Your task to perform on an android device: Play the last video I watched on Youtube Image 0: 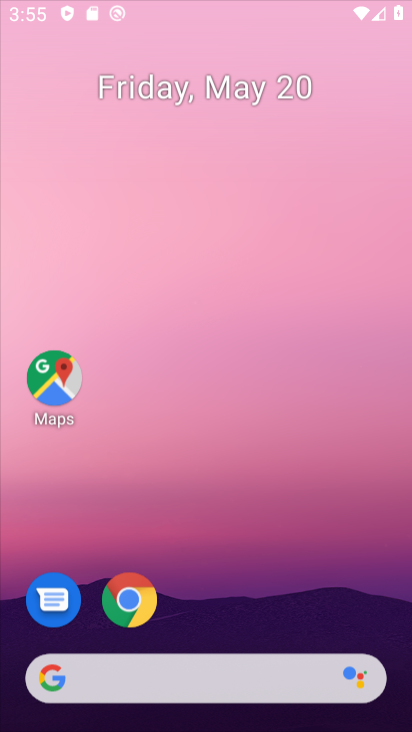
Step 0: click (229, 0)
Your task to perform on an android device: Play the last video I watched on Youtube Image 1: 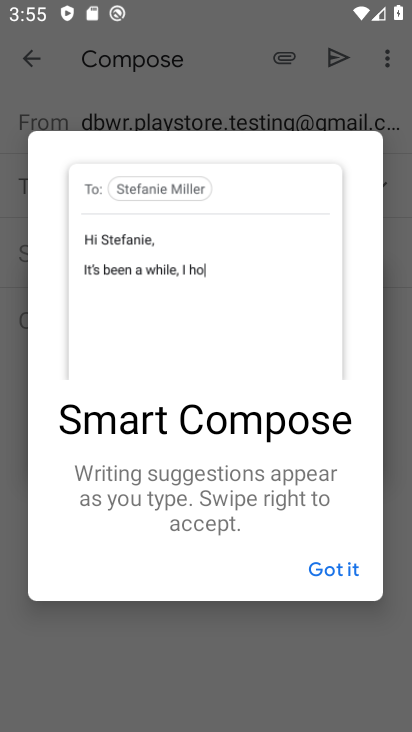
Step 1: press back button
Your task to perform on an android device: Play the last video I watched on Youtube Image 2: 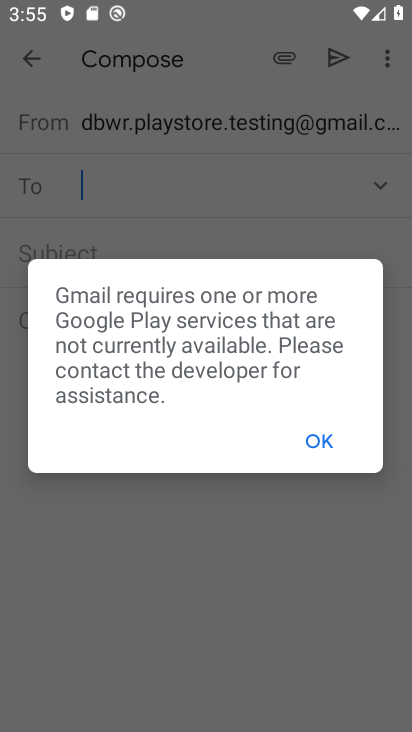
Step 2: press home button
Your task to perform on an android device: Play the last video I watched on Youtube Image 3: 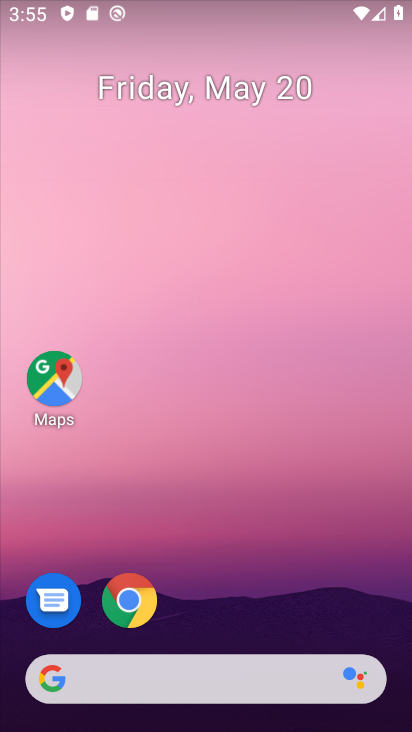
Step 3: drag from (225, 557) to (198, 0)
Your task to perform on an android device: Play the last video I watched on Youtube Image 4: 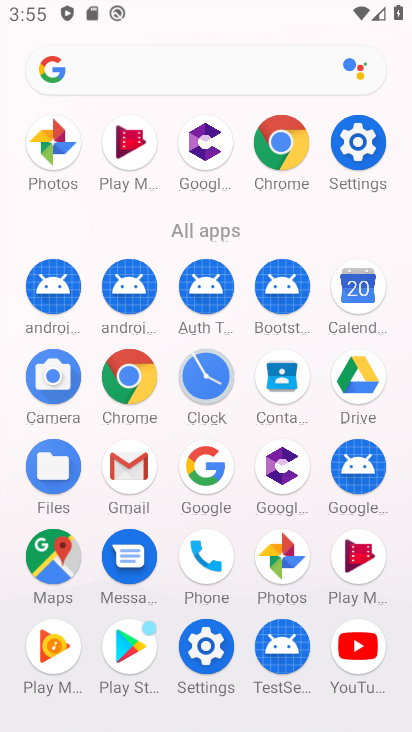
Step 4: drag from (15, 614) to (22, 313)
Your task to perform on an android device: Play the last video I watched on Youtube Image 5: 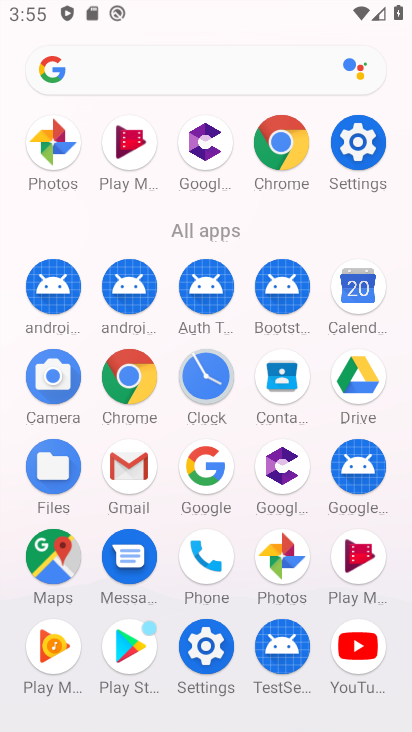
Step 5: click (351, 639)
Your task to perform on an android device: Play the last video I watched on Youtube Image 6: 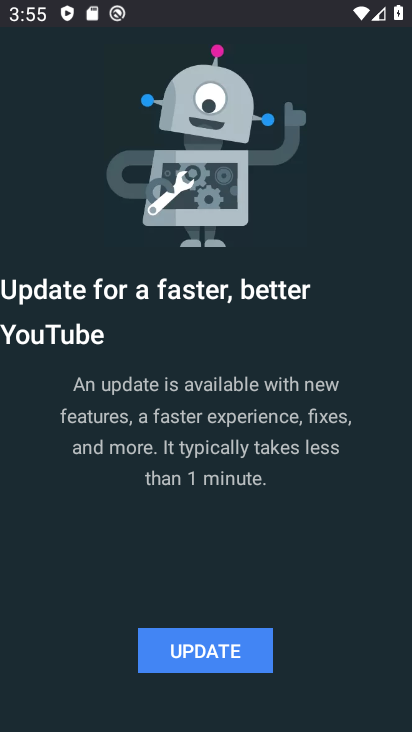
Step 6: click (236, 637)
Your task to perform on an android device: Play the last video I watched on Youtube Image 7: 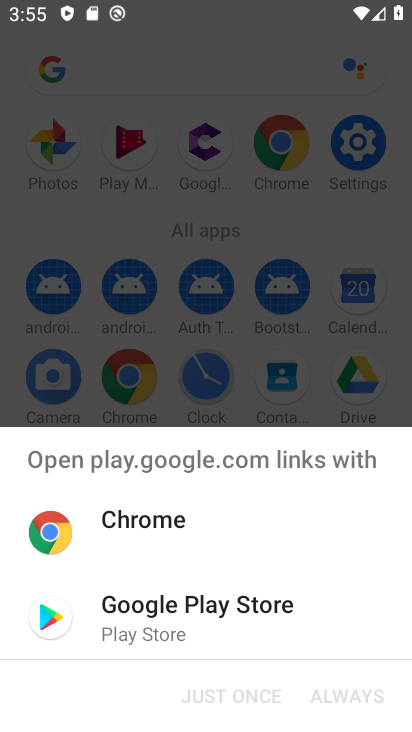
Step 7: click (173, 616)
Your task to perform on an android device: Play the last video I watched on Youtube Image 8: 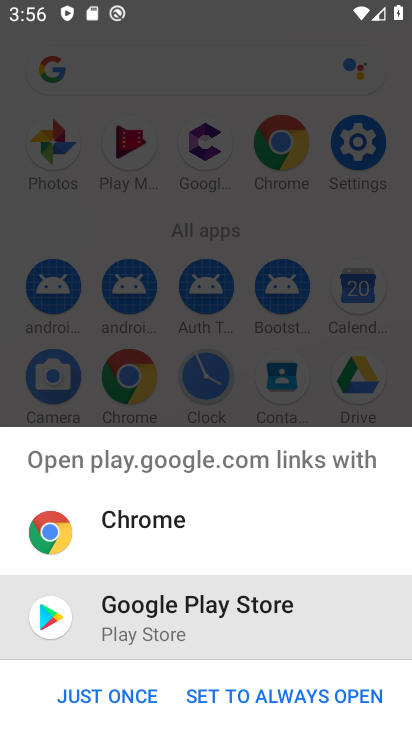
Step 8: click (114, 700)
Your task to perform on an android device: Play the last video I watched on Youtube Image 9: 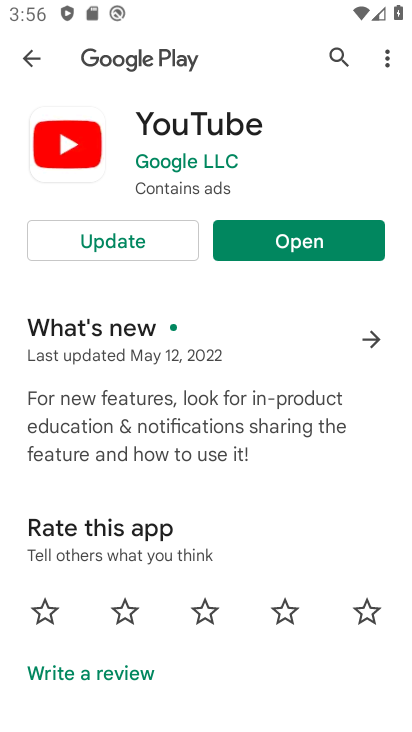
Step 9: click (137, 230)
Your task to perform on an android device: Play the last video I watched on Youtube Image 10: 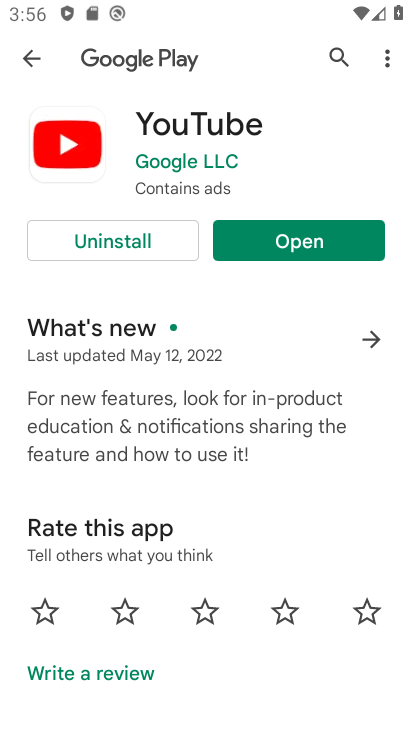
Step 10: click (236, 234)
Your task to perform on an android device: Play the last video I watched on Youtube Image 11: 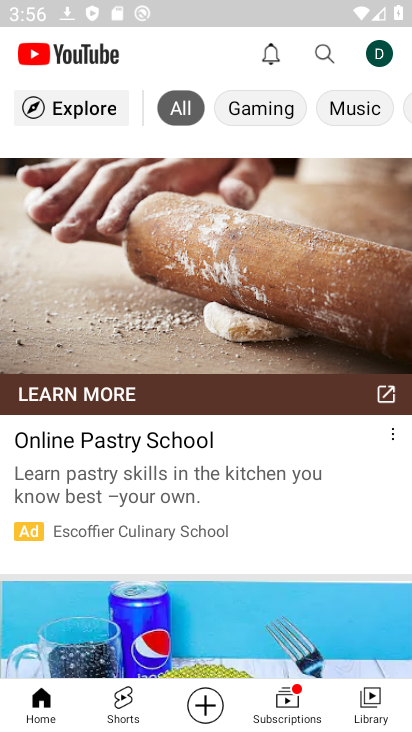
Step 11: click (375, 697)
Your task to perform on an android device: Play the last video I watched on Youtube Image 12: 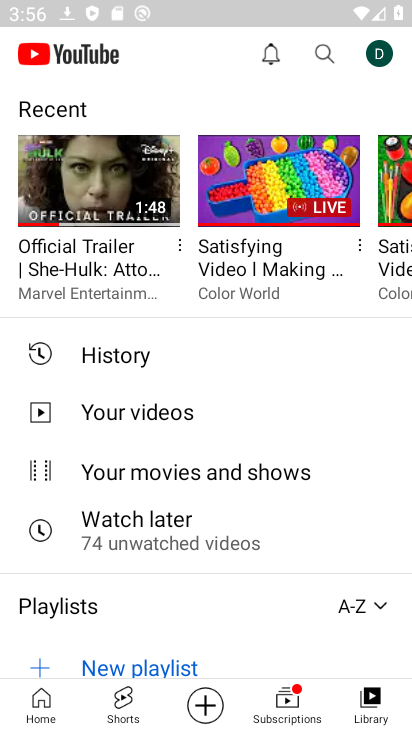
Step 12: click (103, 183)
Your task to perform on an android device: Play the last video I watched on Youtube Image 13: 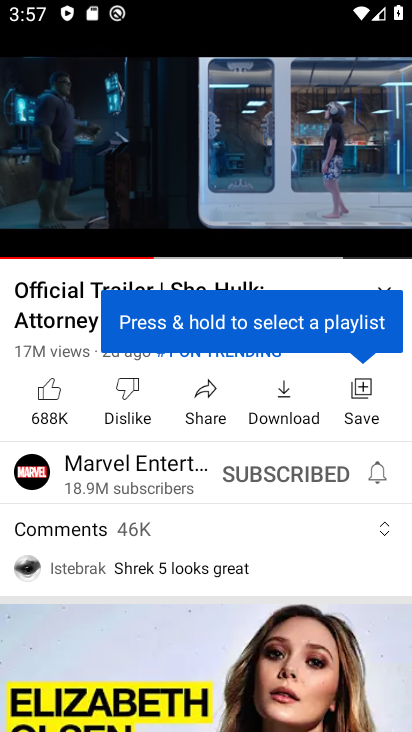
Step 13: task complete